Your task to perform on an android device: open a bookmark in the chrome app Image 0: 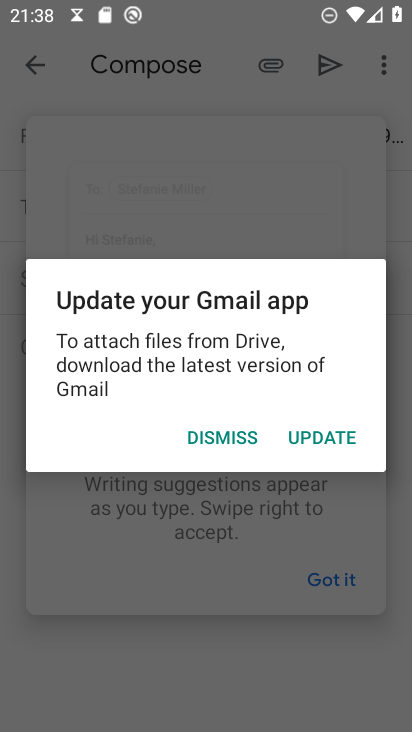
Step 0: press home button
Your task to perform on an android device: open a bookmark in the chrome app Image 1: 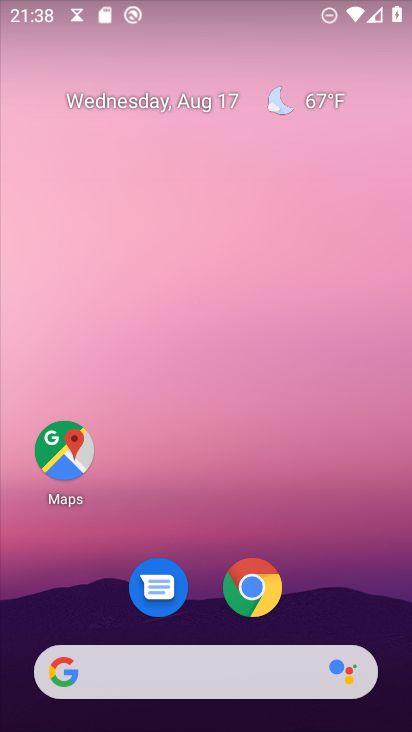
Step 1: click (254, 598)
Your task to perform on an android device: open a bookmark in the chrome app Image 2: 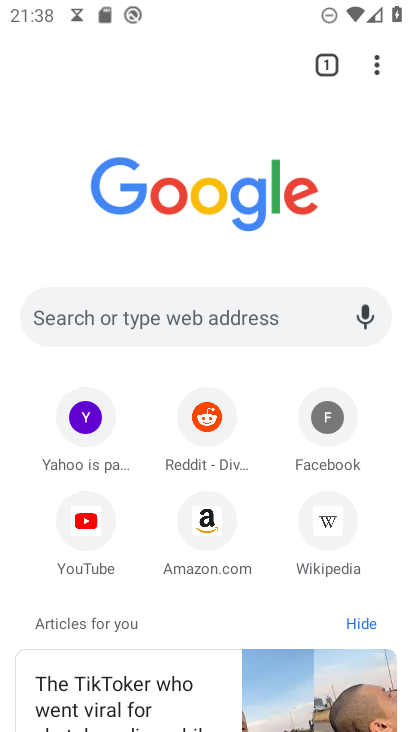
Step 2: click (378, 61)
Your task to perform on an android device: open a bookmark in the chrome app Image 3: 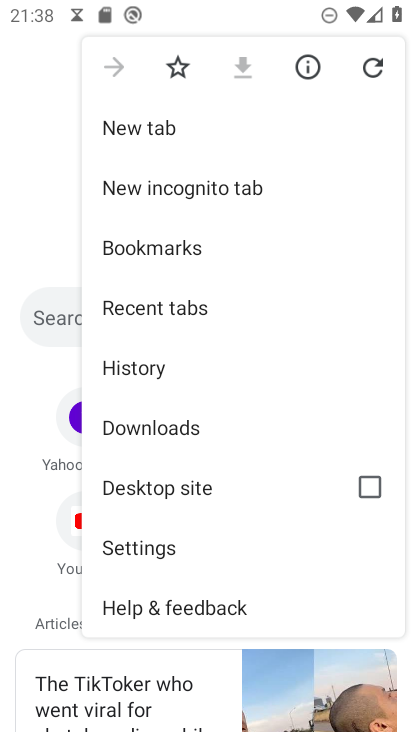
Step 3: click (160, 243)
Your task to perform on an android device: open a bookmark in the chrome app Image 4: 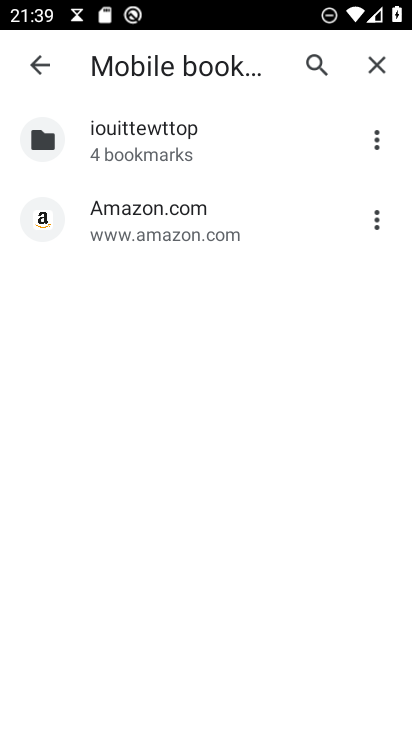
Step 4: task complete